Your task to perform on an android device: toggle pop-ups in chrome Image 0: 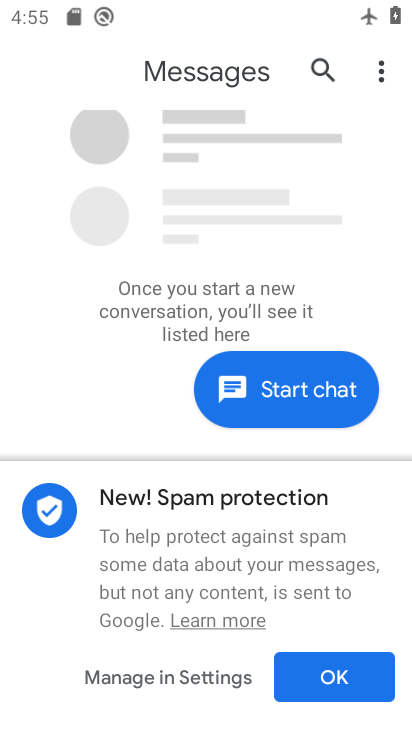
Step 0: press home button
Your task to perform on an android device: toggle pop-ups in chrome Image 1: 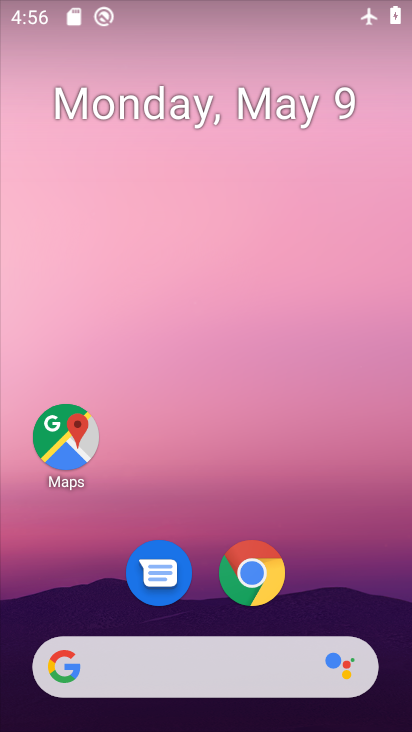
Step 1: click (249, 569)
Your task to perform on an android device: toggle pop-ups in chrome Image 2: 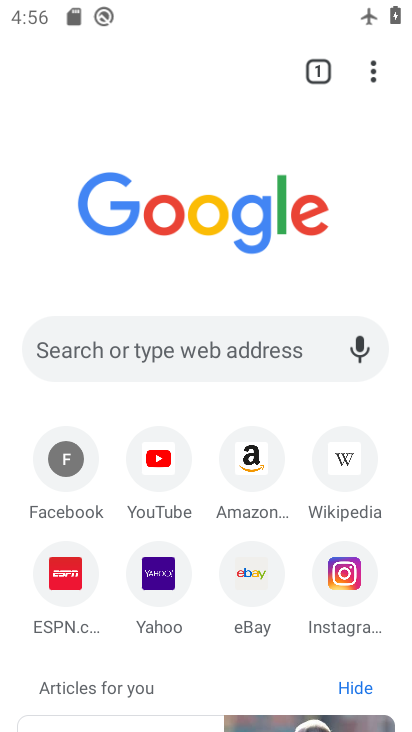
Step 2: click (371, 75)
Your task to perform on an android device: toggle pop-ups in chrome Image 3: 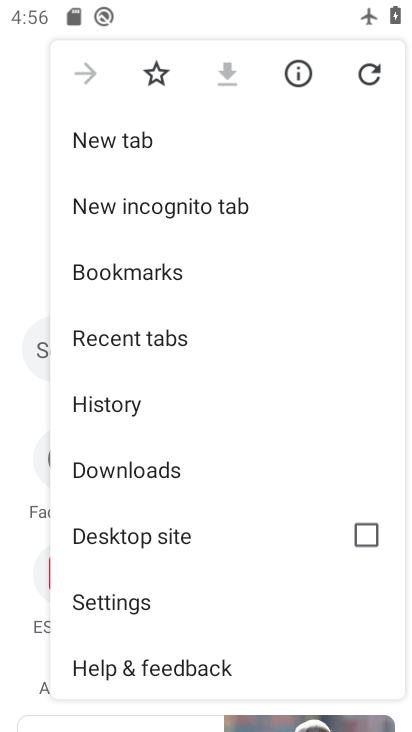
Step 3: click (109, 608)
Your task to perform on an android device: toggle pop-ups in chrome Image 4: 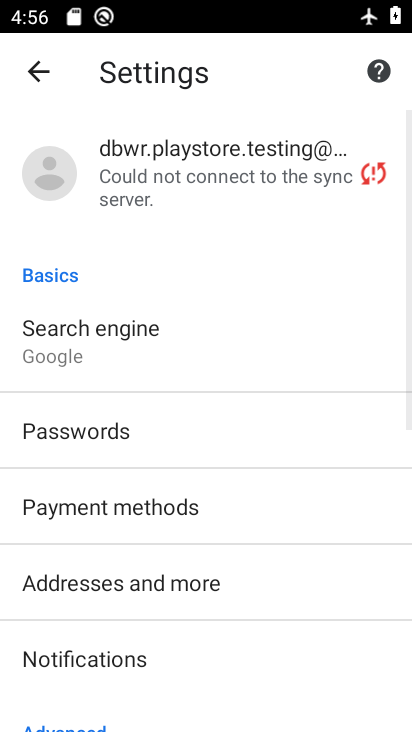
Step 4: drag from (252, 643) to (239, 187)
Your task to perform on an android device: toggle pop-ups in chrome Image 5: 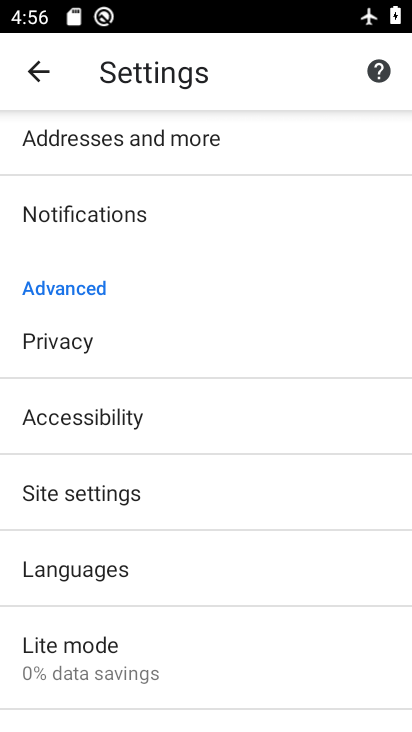
Step 5: click (43, 497)
Your task to perform on an android device: toggle pop-ups in chrome Image 6: 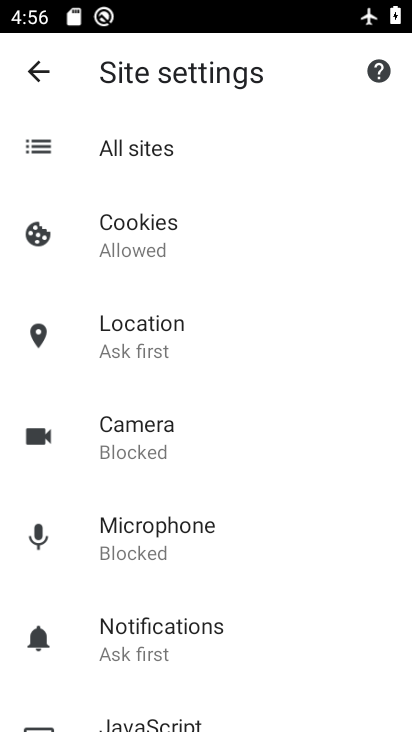
Step 6: drag from (257, 587) to (218, 132)
Your task to perform on an android device: toggle pop-ups in chrome Image 7: 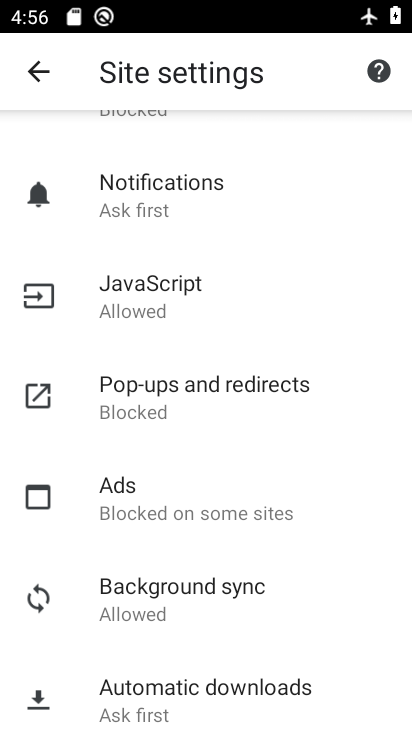
Step 7: click (130, 403)
Your task to perform on an android device: toggle pop-ups in chrome Image 8: 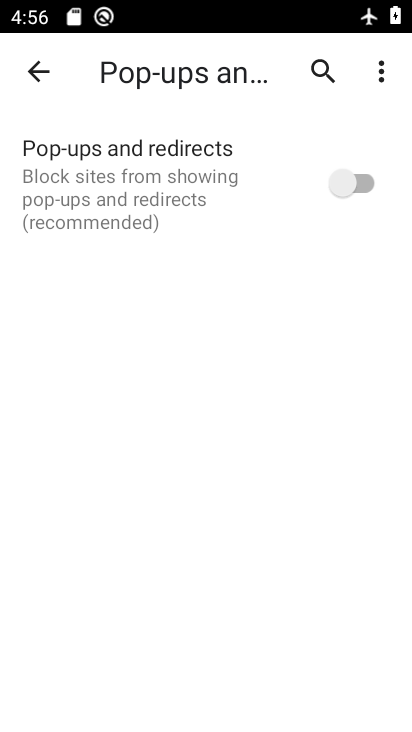
Step 8: click (363, 180)
Your task to perform on an android device: toggle pop-ups in chrome Image 9: 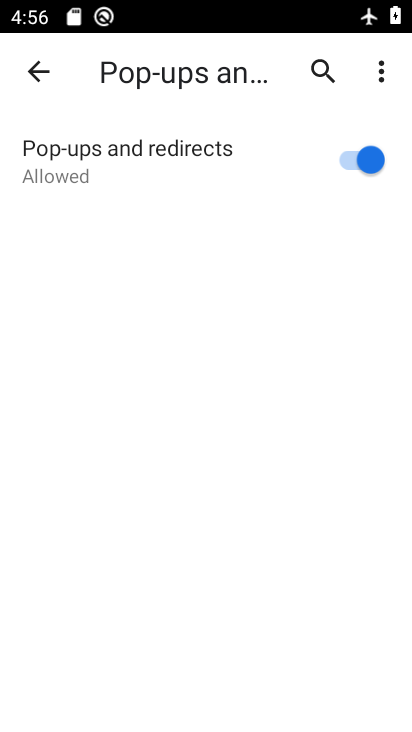
Step 9: task complete